Your task to perform on an android device: Go to calendar. Show me events next week Image 0: 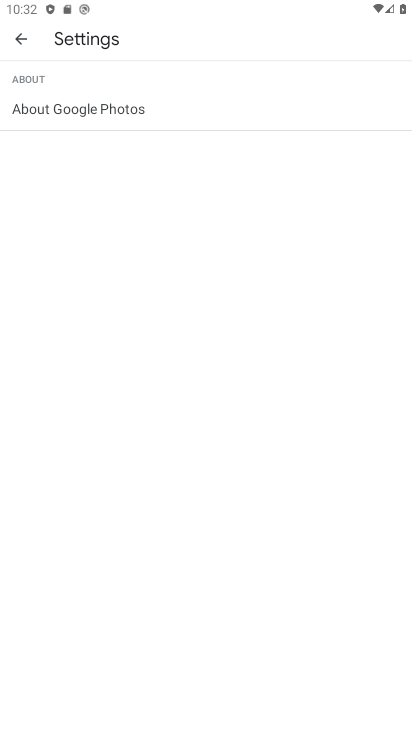
Step 0: press home button
Your task to perform on an android device: Go to calendar. Show me events next week Image 1: 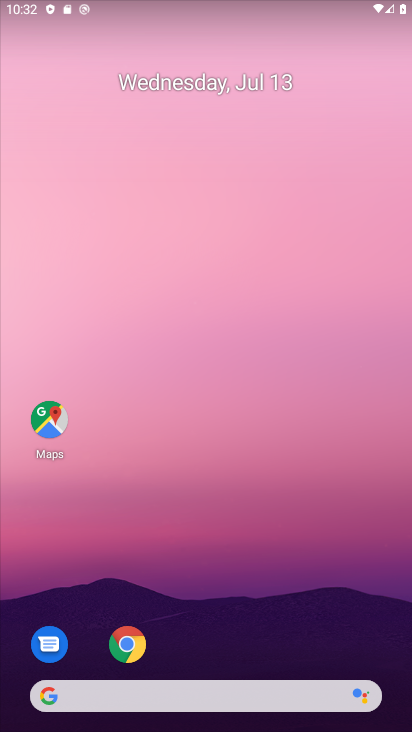
Step 1: drag from (229, 559) to (177, 114)
Your task to perform on an android device: Go to calendar. Show me events next week Image 2: 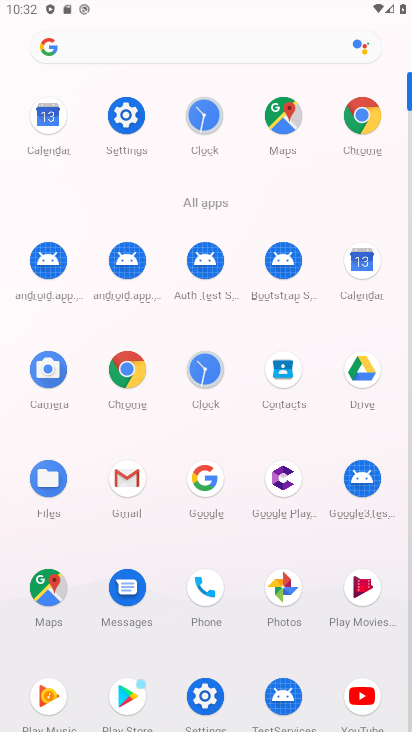
Step 2: click (367, 255)
Your task to perform on an android device: Go to calendar. Show me events next week Image 3: 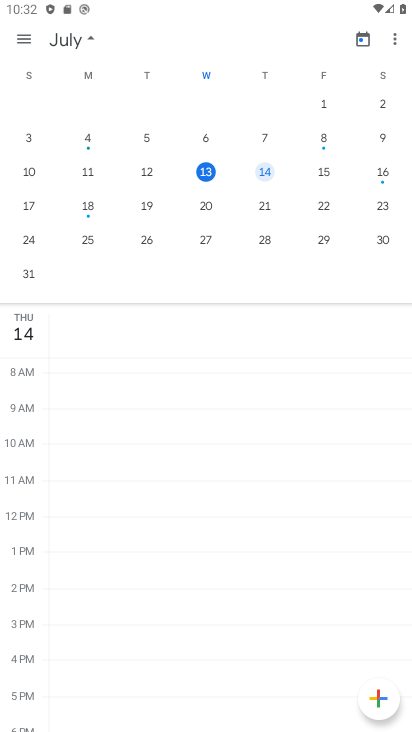
Step 3: click (146, 209)
Your task to perform on an android device: Go to calendar. Show me events next week Image 4: 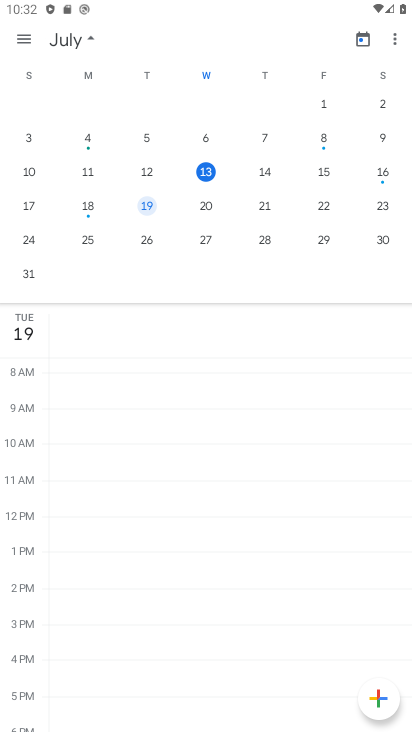
Step 4: click (17, 32)
Your task to perform on an android device: Go to calendar. Show me events next week Image 5: 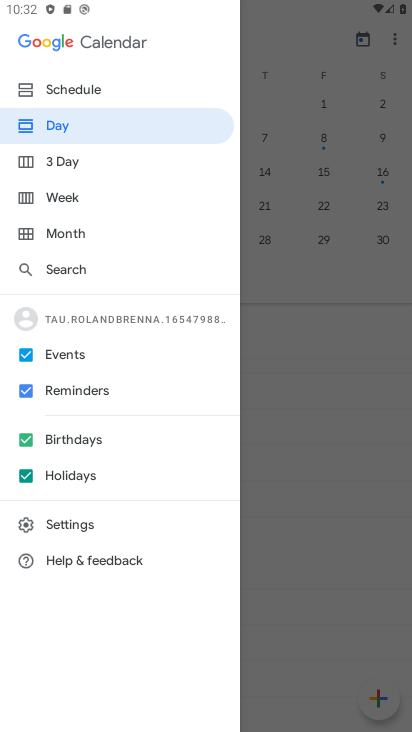
Step 5: click (69, 193)
Your task to perform on an android device: Go to calendar. Show me events next week Image 6: 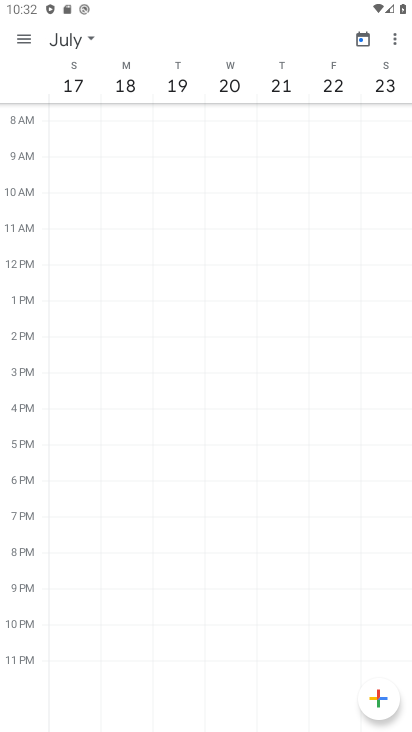
Step 6: task complete